Your task to perform on an android device: Clear all items from cart on costco. Search for razer kraken on costco, select the first entry, add it to the cart, then select checkout. Image 0: 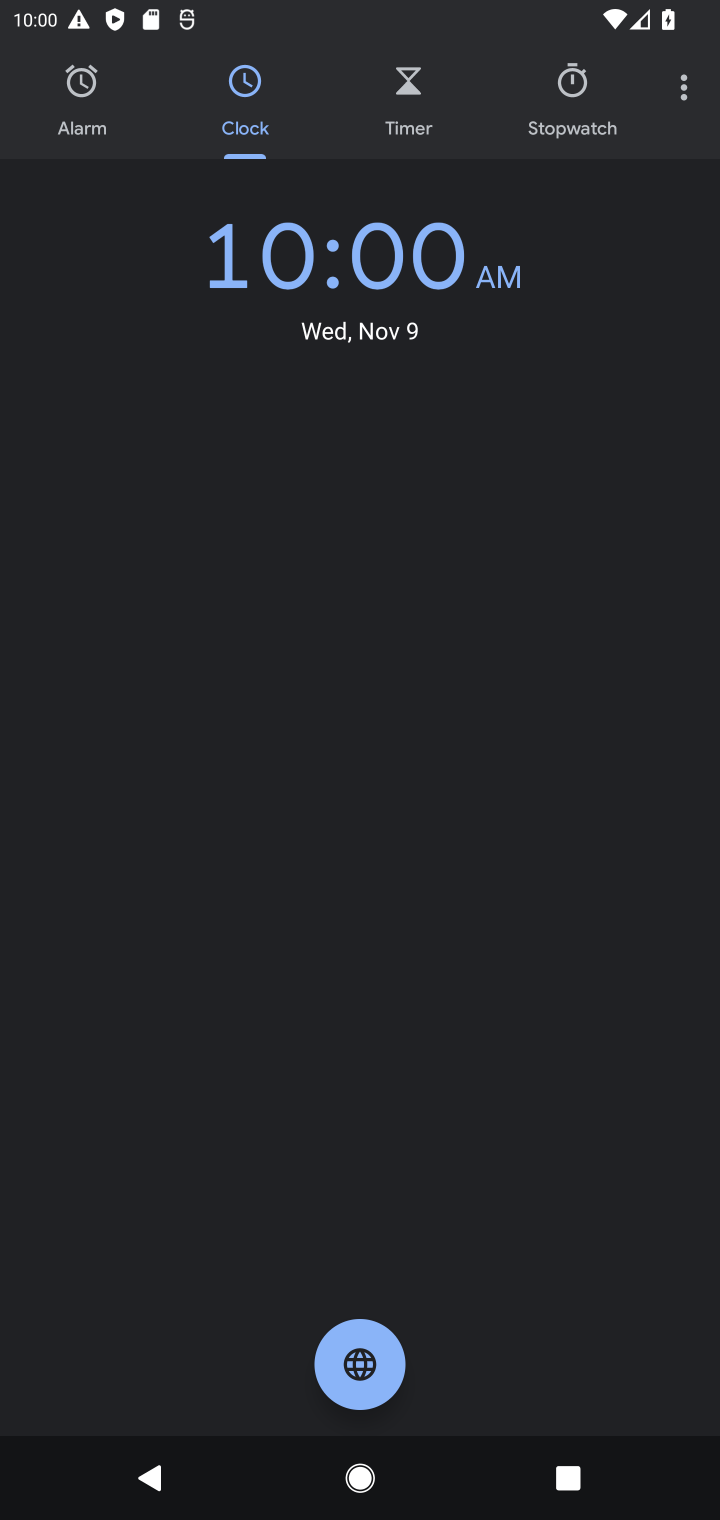
Step 0: press home button
Your task to perform on an android device: Clear all items from cart on costco. Search for razer kraken on costco, select the first entry, add it to the cart, then select checkout. Image 1: 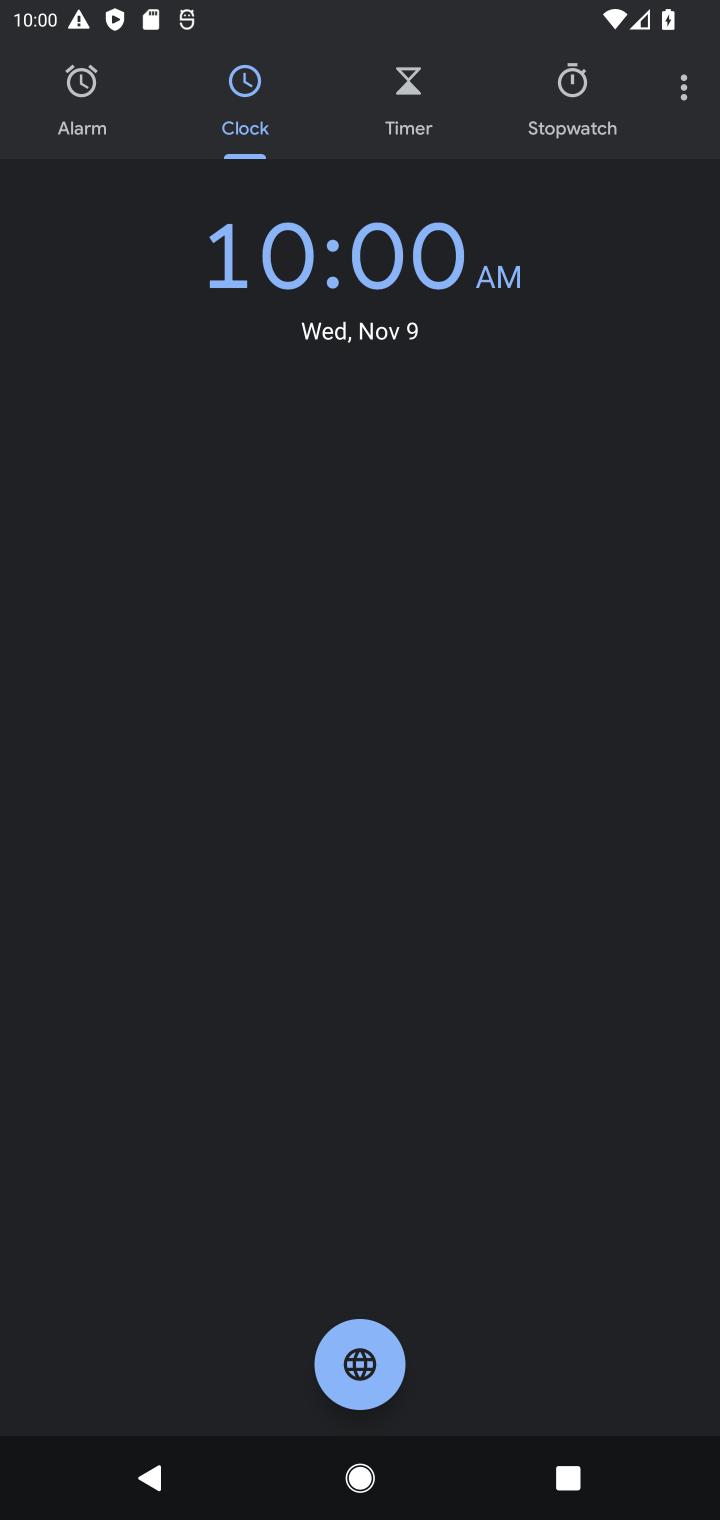
Step 1: press home button
Your task to perform on an android device: Clear all items from cart on costco. Search for razer kraken on costco, select the first entry, add it to the cart, then select checkout. Image 2: 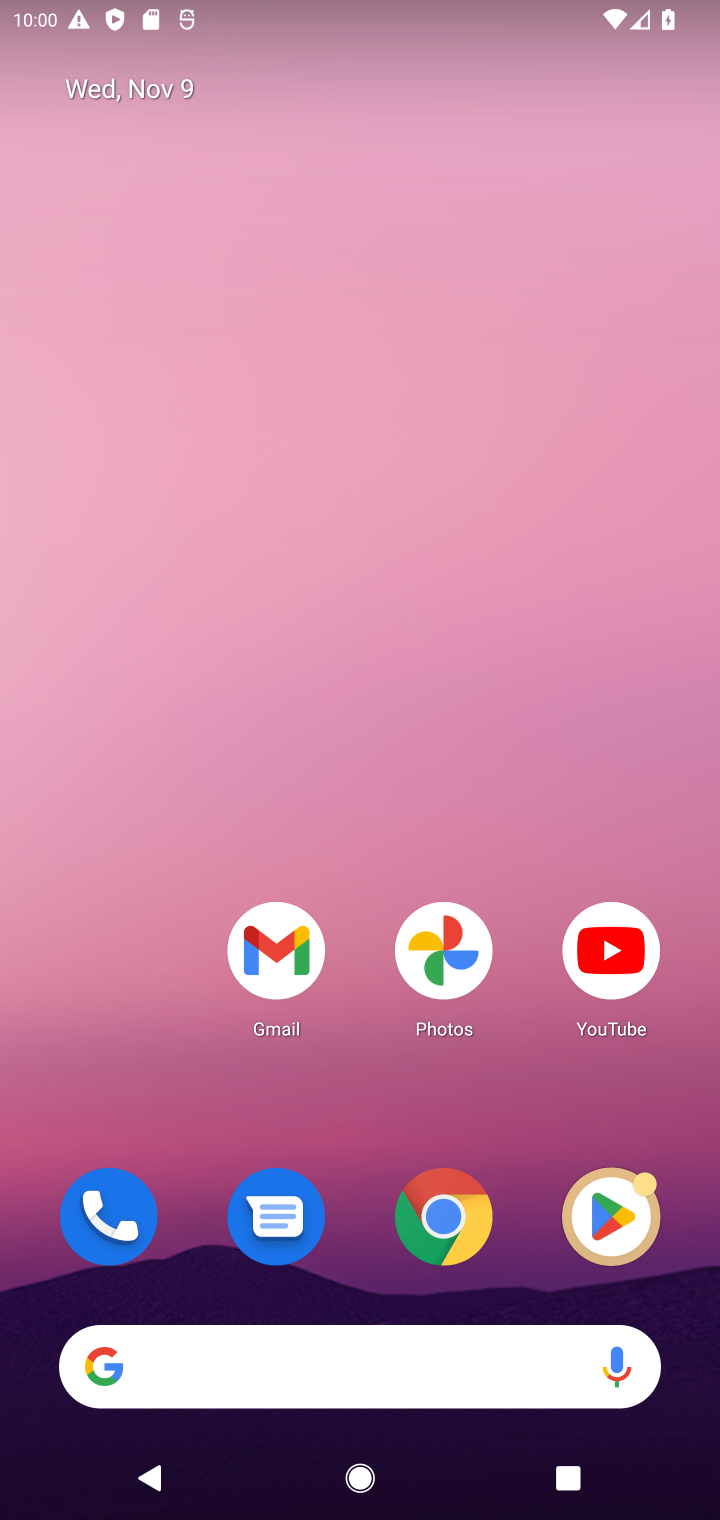
Step 2: drag from (271, 649) to (264, 104)
Your task to perform on an android device: Clear all items from cart on costco. Search for razer kraken on costco, select the first entry, add it to the cart, then select checkout. Image 3: 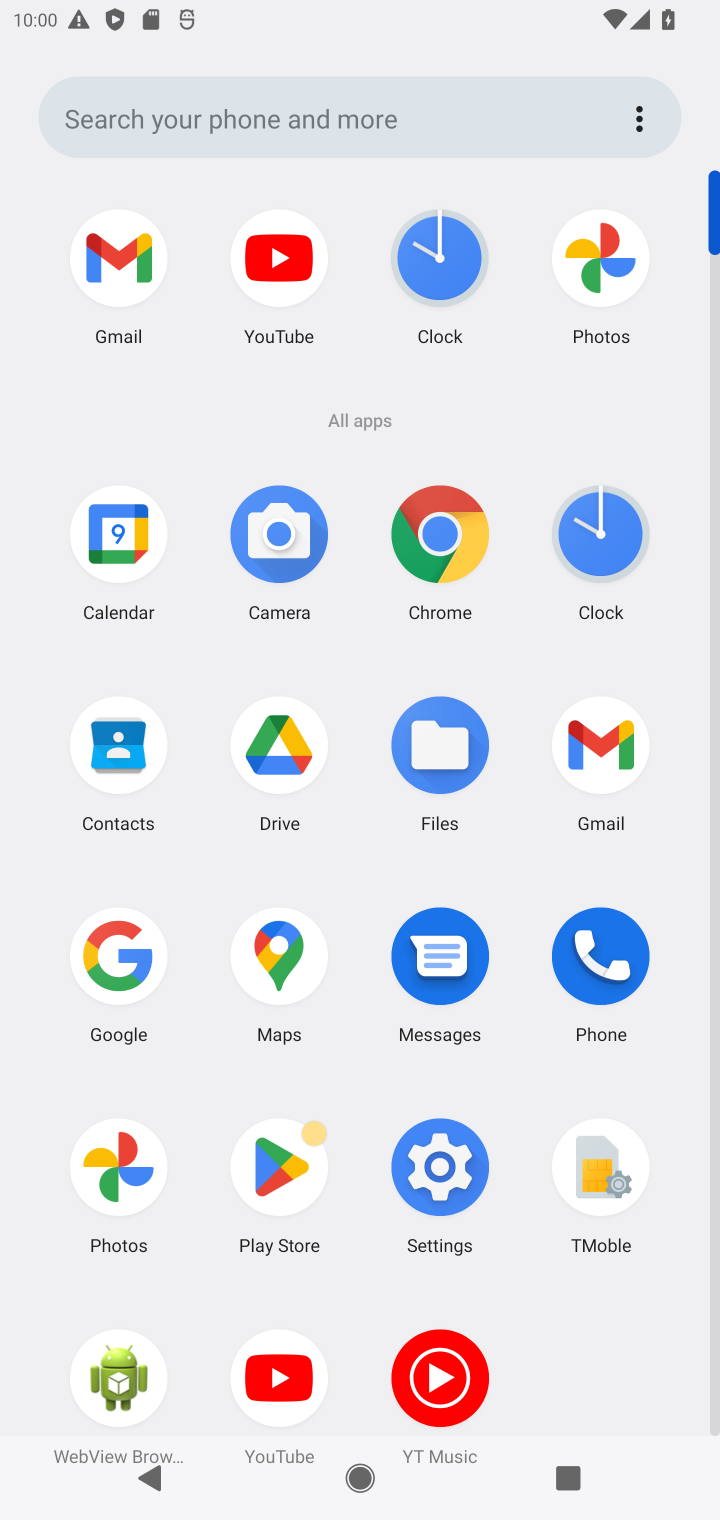
Step 3: click (446, 546)
Your task to perform on an android device: Clear all items from cart on costco. Search for razer kraken on costco, select the first entry, add it to the cart, then select checkout. Image 4: 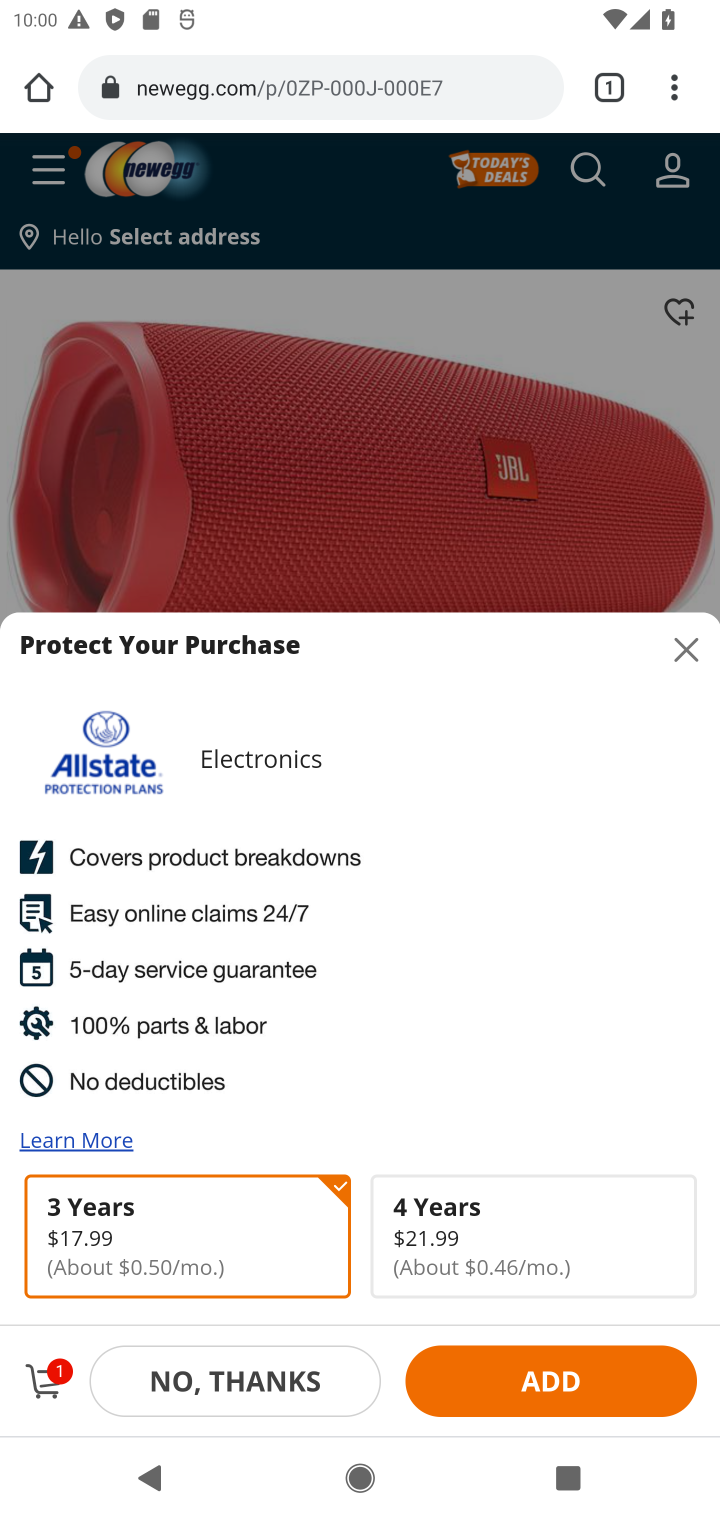
Step 4: click (294, 86)
Your task to perform on an android device: Clear all items from cart on costco. Search for razer kraken on costco, select the first entry, add it to the cart, then select checkout. Image 5: 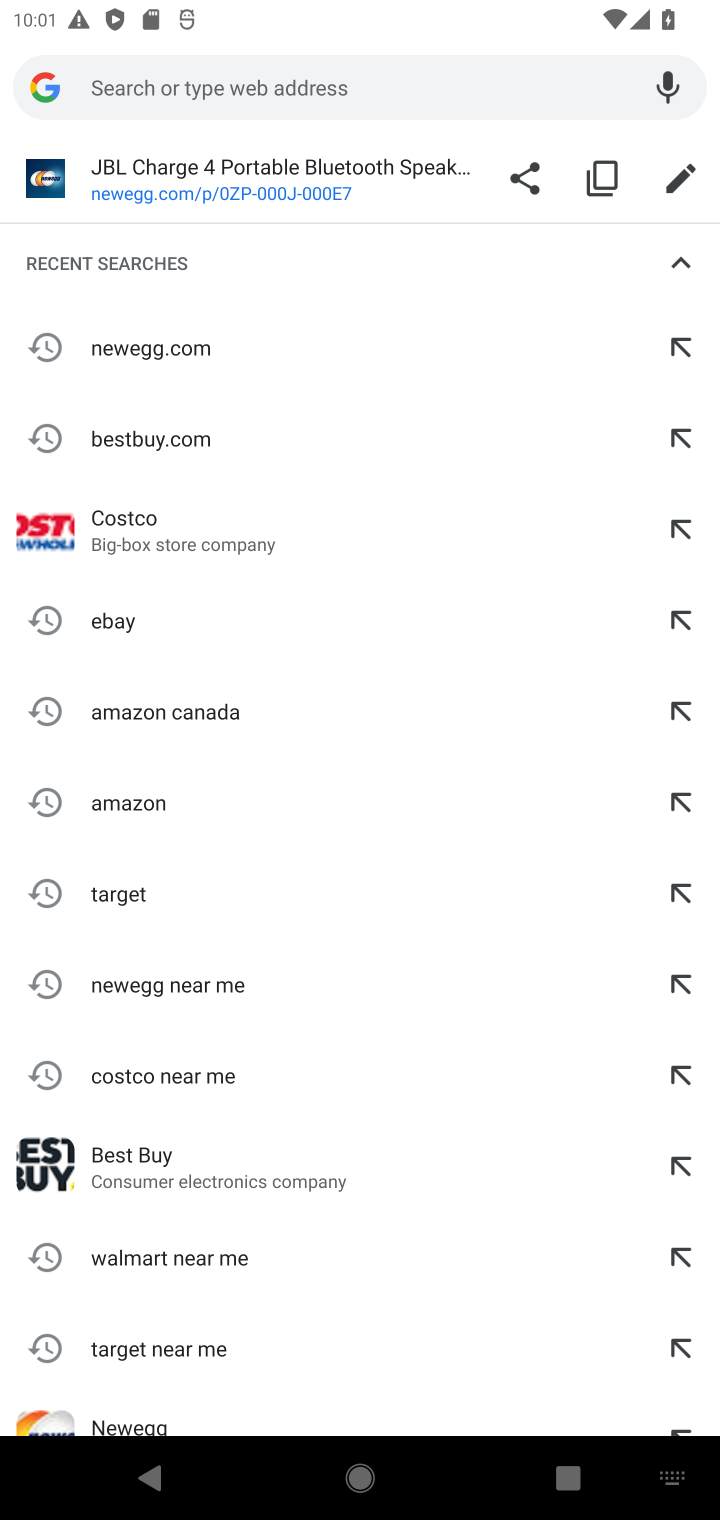
Step 5: type "costco.com"
Your task to perform on an android device: Clear all items from cart on costco. Search for razer kraken on costco, select the first entry, add it to the cart, then select checkout. Image 6: 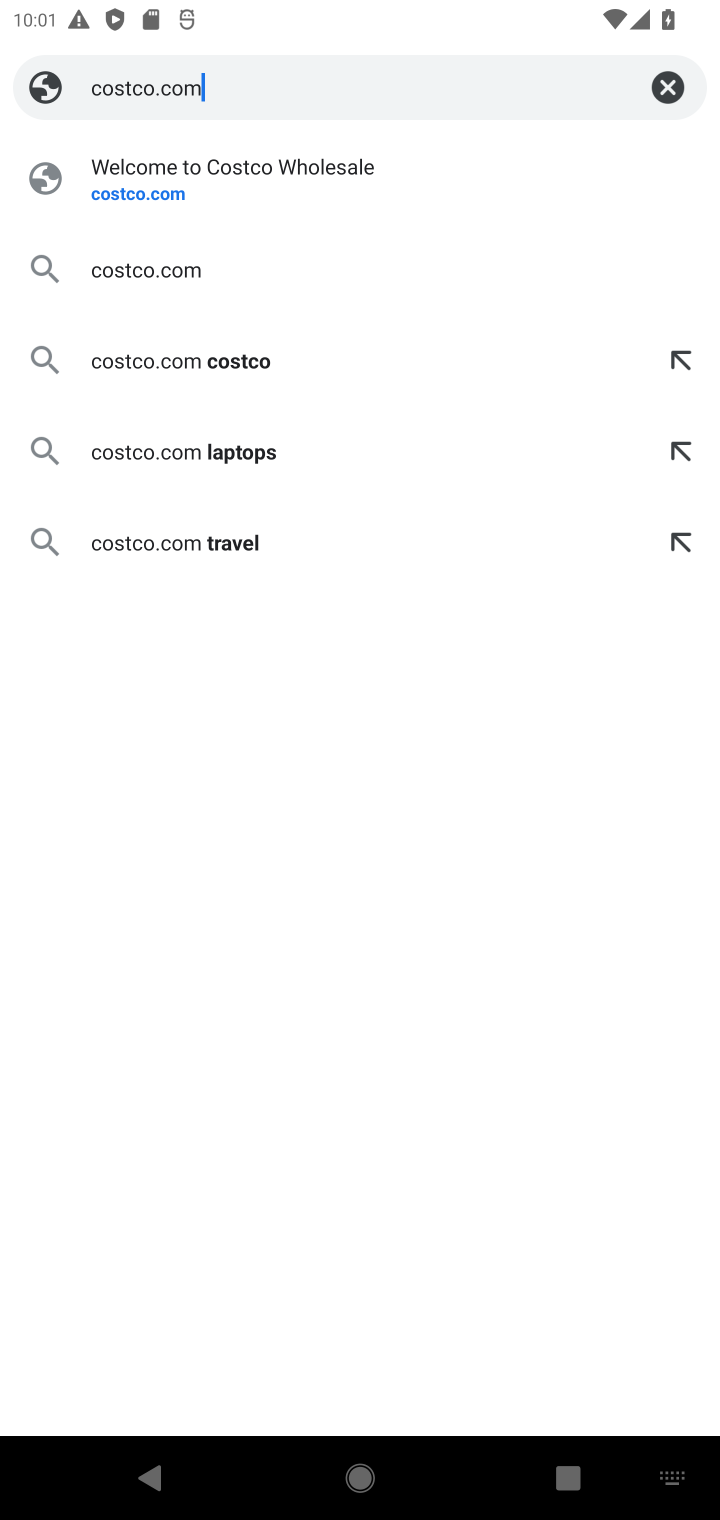
Step 6: press enter
Your task to perform on an android device: Clear all items from cart on costco. Search for razer kraken on costco, select the first entry, add it to the cart, then select checkout. Image 7: 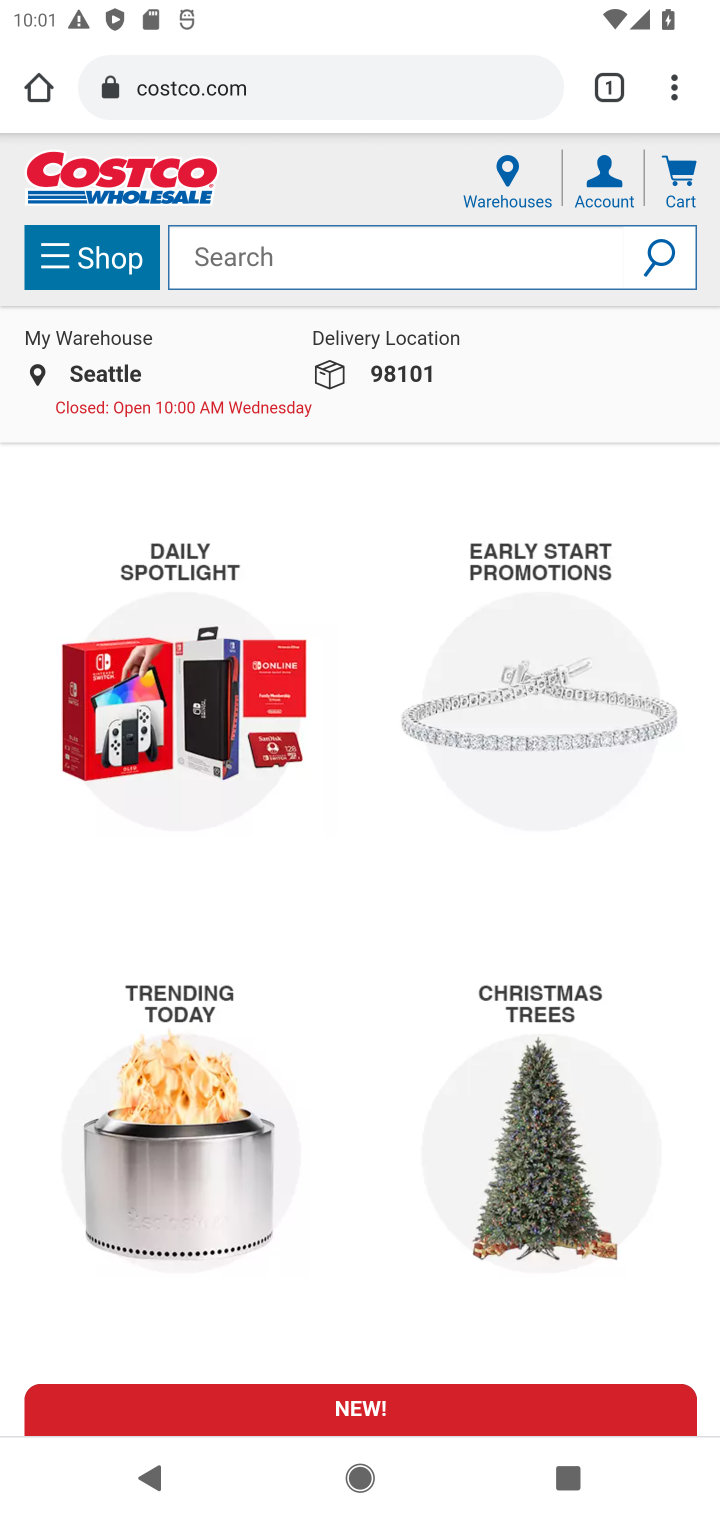
Step 7: click (689, 171)
Your task to perform on an android device: Clear all items from cart on costco. Search for razer kraken on costco, select the first entry, add it to the cart, then select checkout. Image 8: 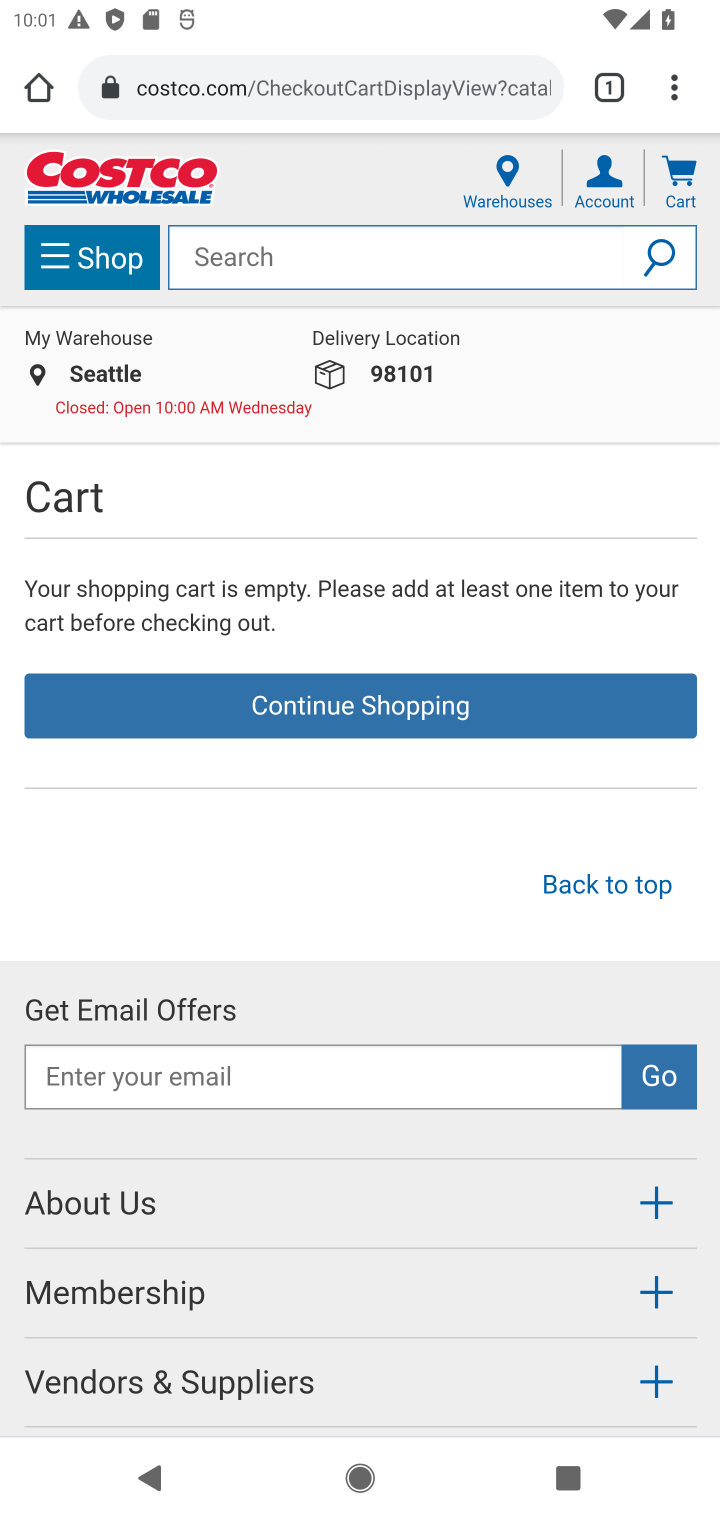
Step 8: click (342, 259)
Your task to perform on an android device: Clear all items from cart on costco. Search for razer kraken on costco, select the first entry, add it to the cart, then select checkout. Image 9: 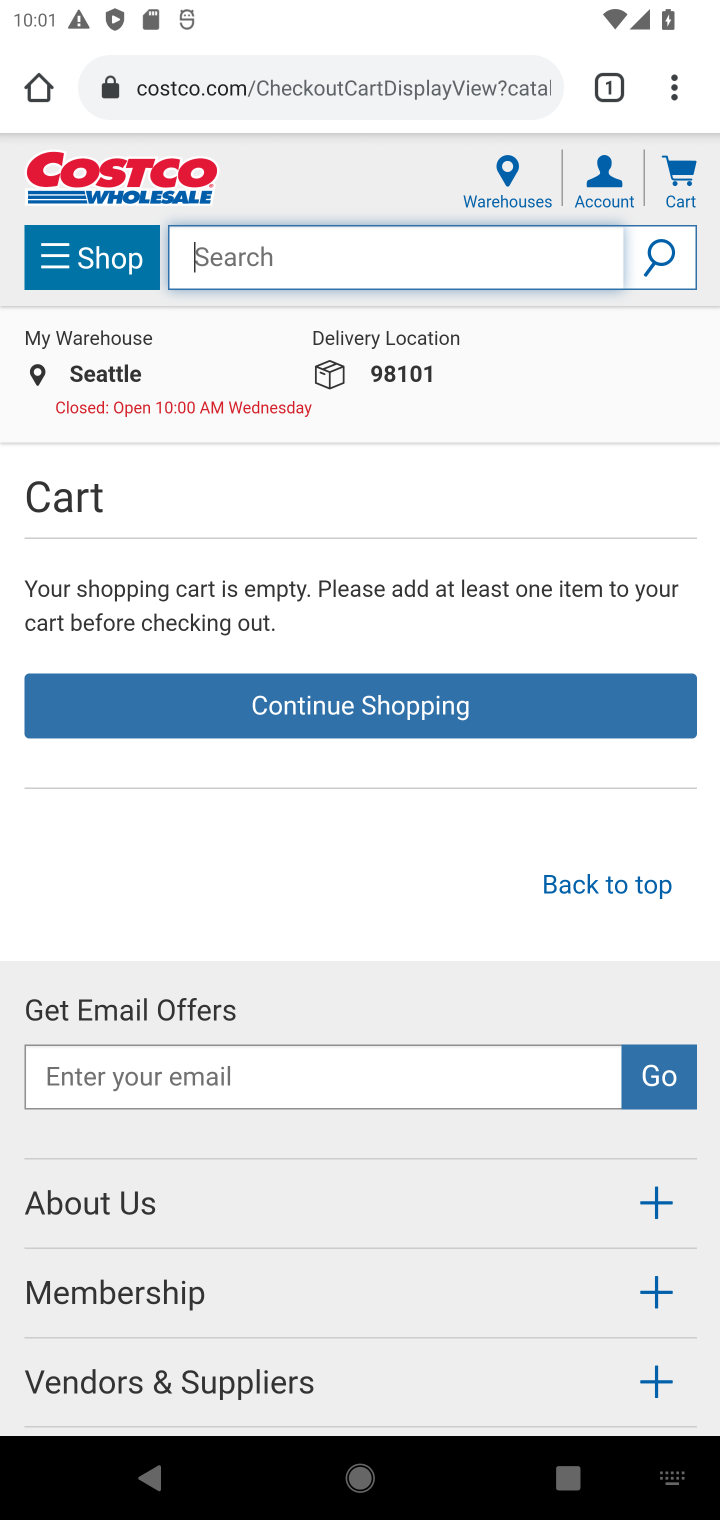
Step 9: type "razer jkraken"
Your task to perform on an android device: Clear all items from cart on costco. Search for razer kraken on costco, select the first entry, add it to the cart, then select checkout. Image 10: 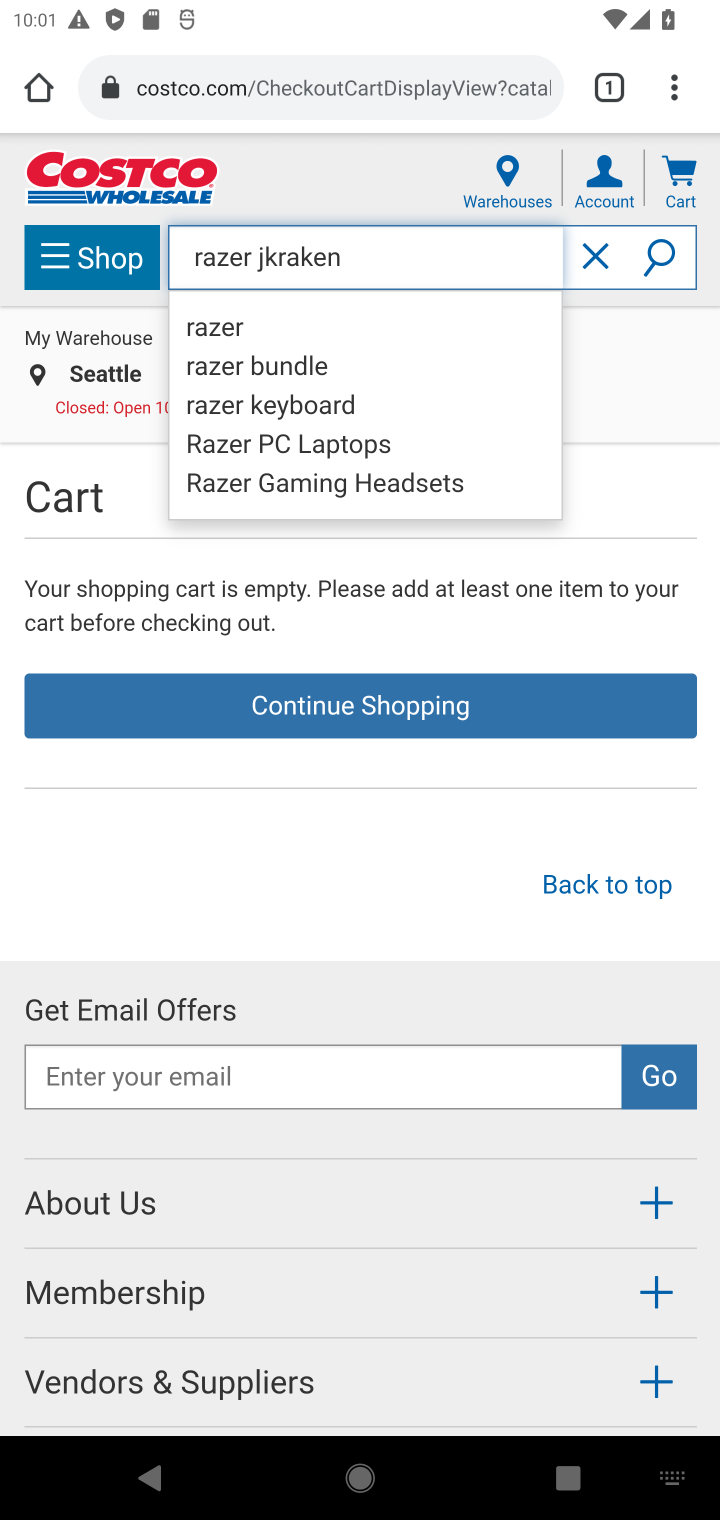
Step 10: click (608, 259)
Your task to perform on an android device: Clear all items from cart on costco. Search for razer kraken on costco, select the first entry, add it to the cart, then select checkout. Image 11: 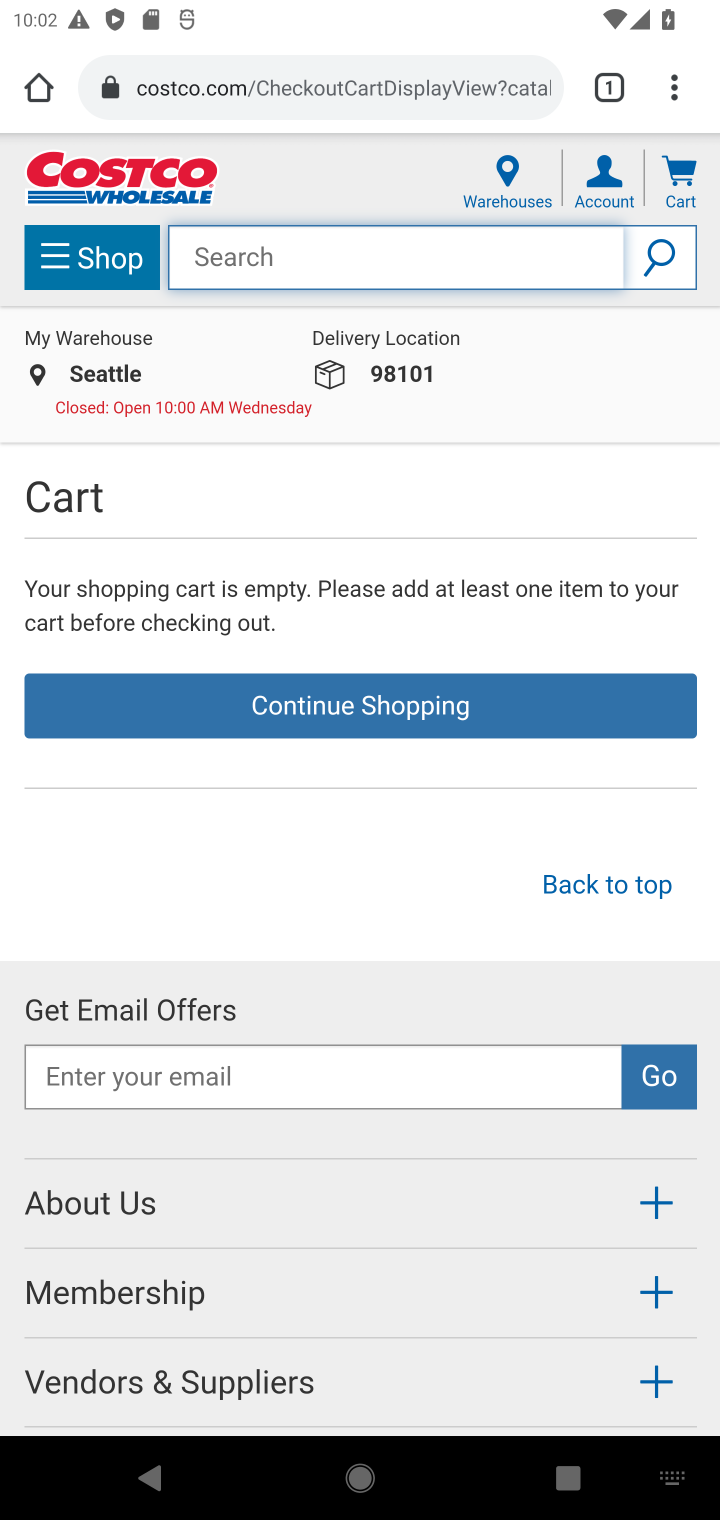
Step 11: type "razer kraken"
Your task to perform on an android device: Clear all items from cart on costco. Search for razer kraken on costco, select the first entry, add it to the cart, then select checkout. Image 12: 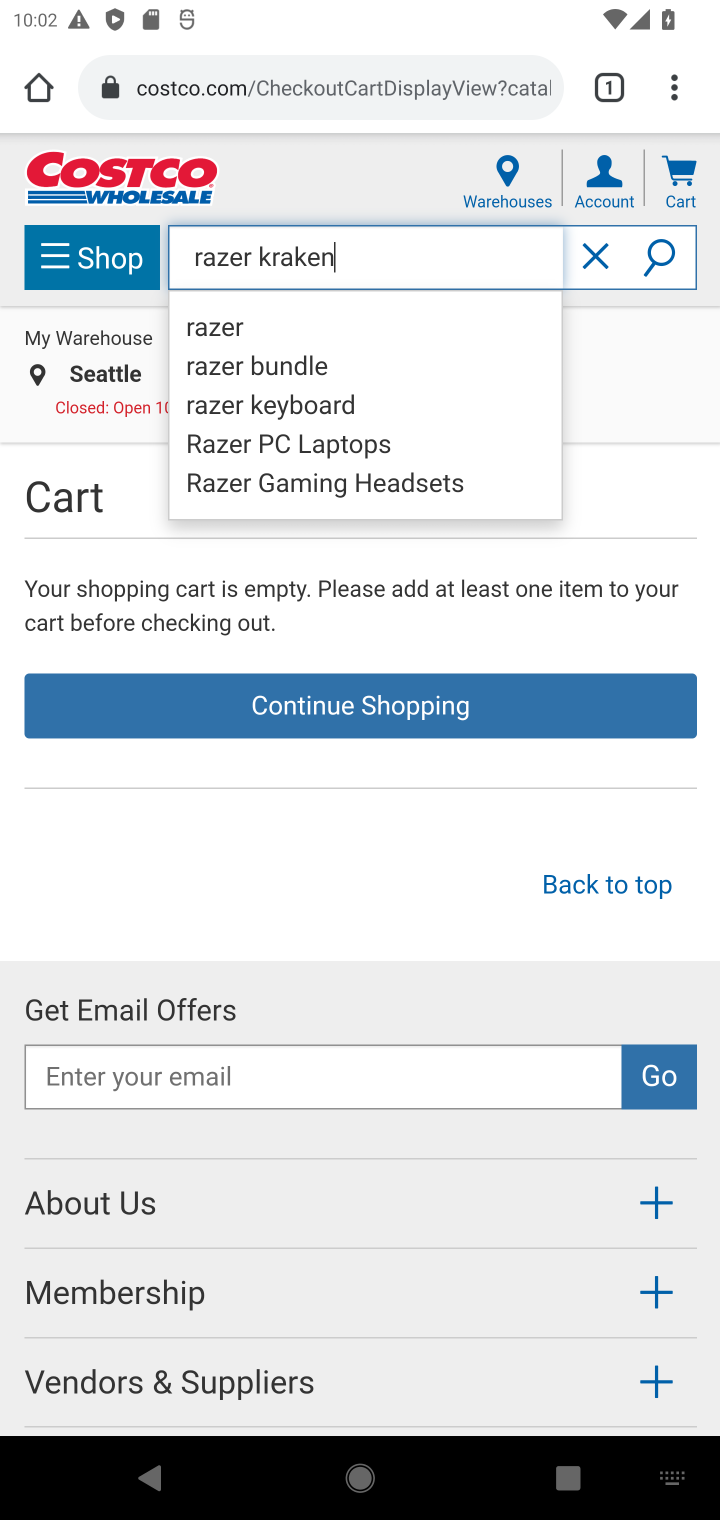
Step 12: press enter
Your task to perform on an android device: Clear all items from cart on costco. Search for razer kraken on costco, select the first entry, add it to the cart, then select checkout. Image 13: 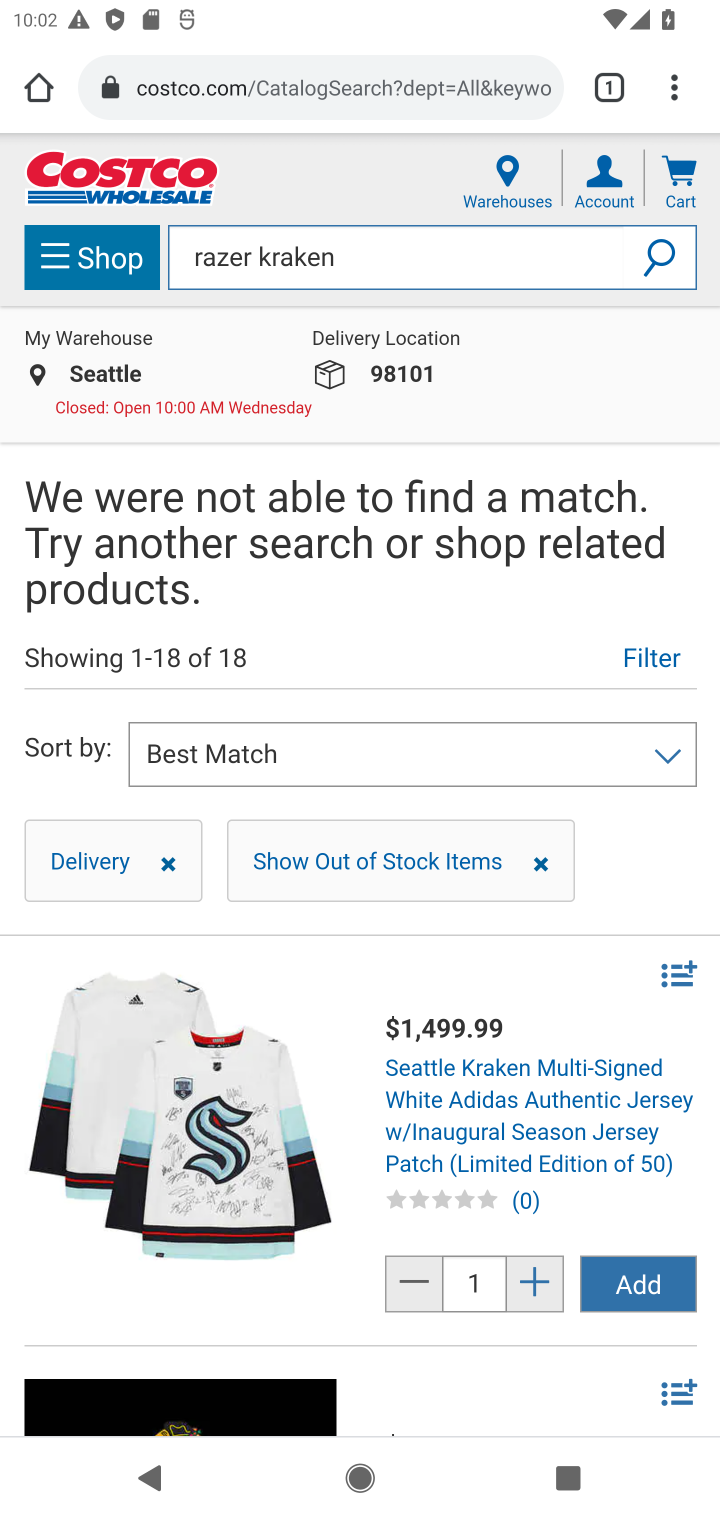
Step 13: task complete